Your task to perform on an android device: open a bookmark in the chrome app Image 0: 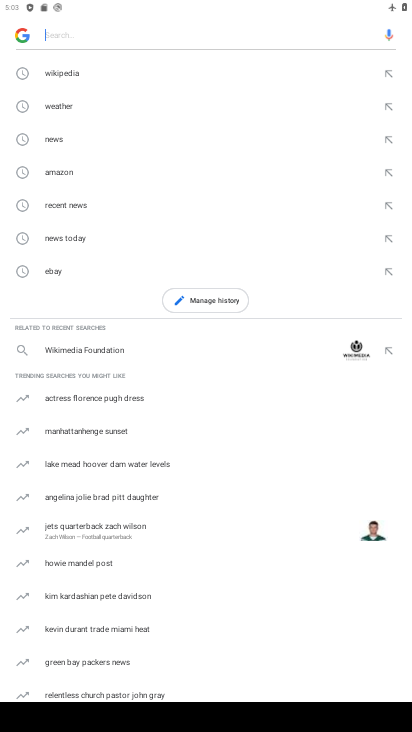
Step 0: press home button
Your task to perform on an android device: open a bookmark in the chrome app Image 1: 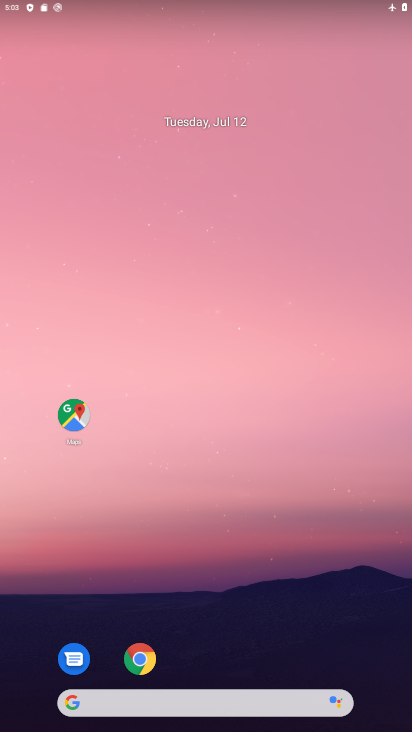
Step 1: click (139, 665)
Your task to perform on an android device: open a bookmark in the chrome app Image 2: 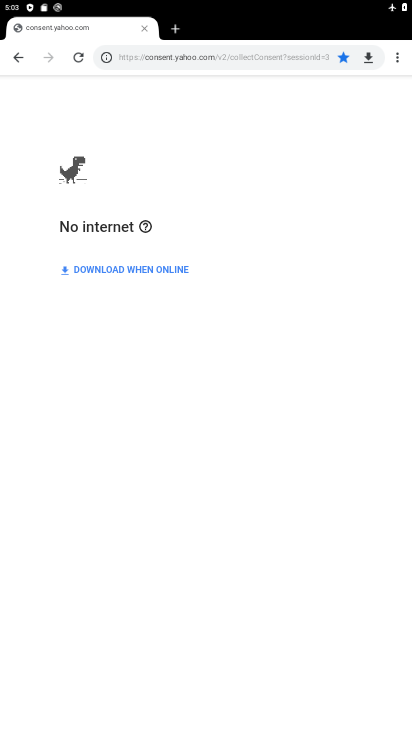
Step 2: task complete